Your task to perform on an android device: Check the weather Image 0: 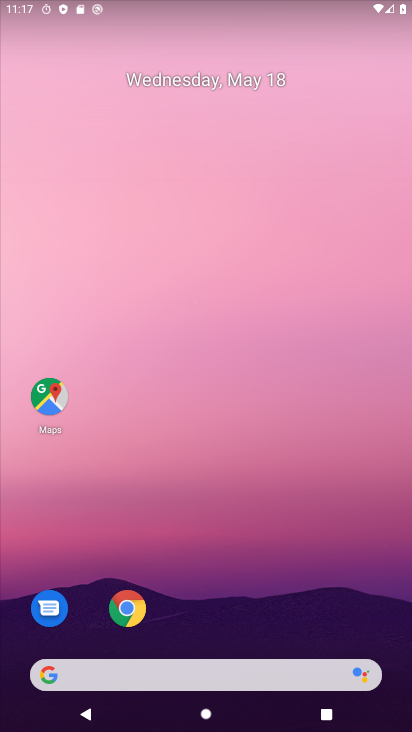
Step 0: click (134, 603)
Your task to perform on an android device: Check the weather Image 1: 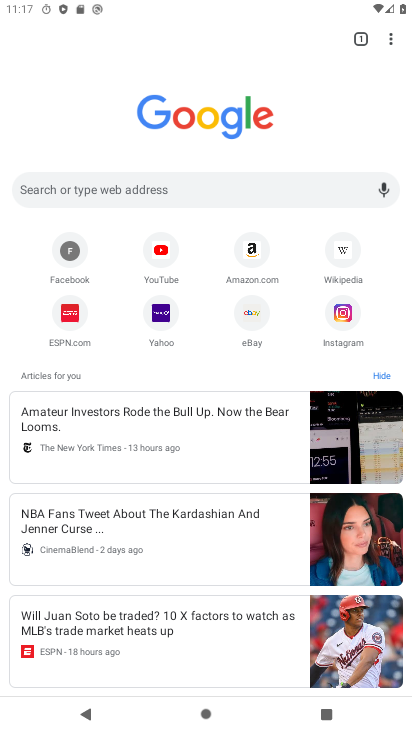
Step 1: click (209, 182)
Your task to perform on an android device: Check the weather Image 2: 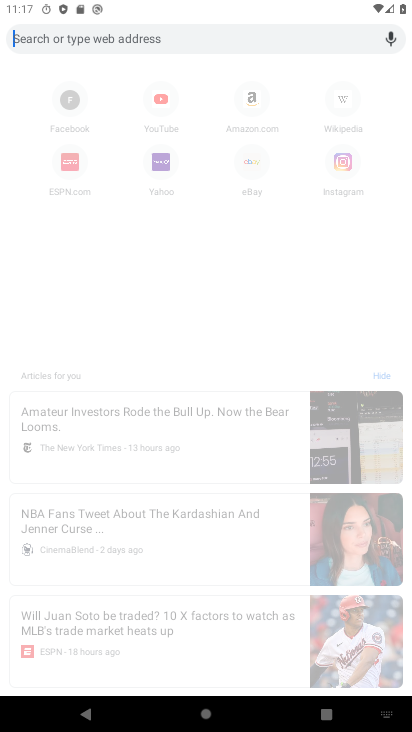
Step 2: type "Check the weather"
Your task to perform on an android device: Check the weather Image 3: 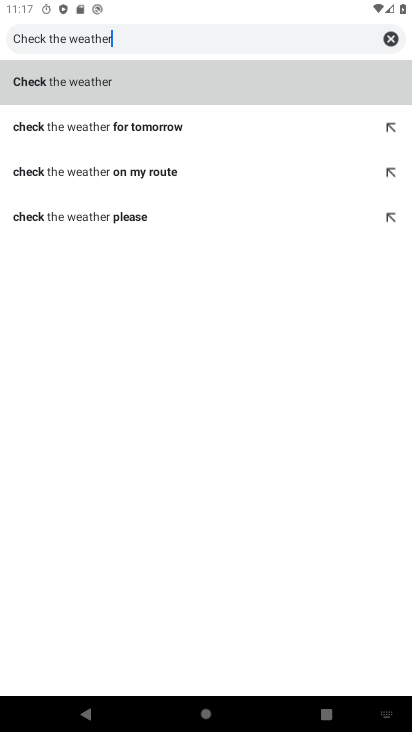
Step 3: click (248, 80)
Your task to perform on an android device: Check the weather Image 4: 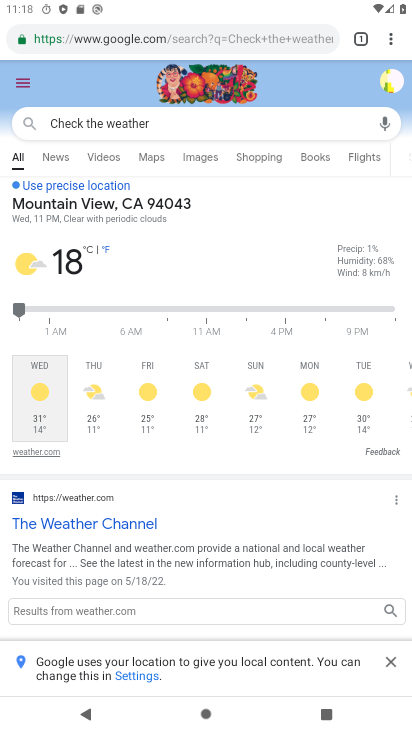
Step 4: task complete